Your task to perform on an android device: turn on sleep mode Image 0: 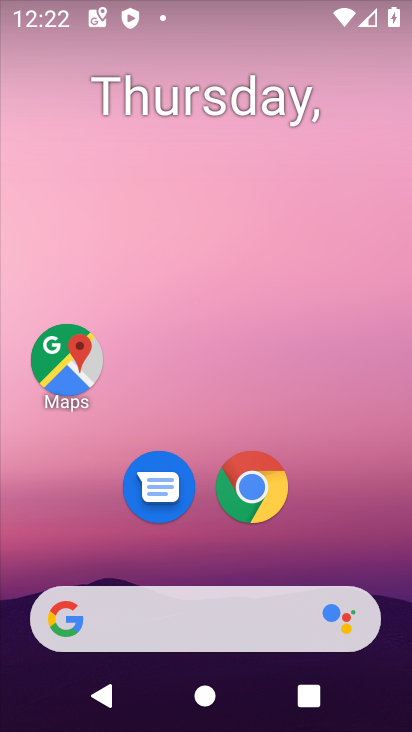
Step 0: drag from (357, 501) to (342, 60)
Your task to perform on an android device: turn on sleep mode Image 1: 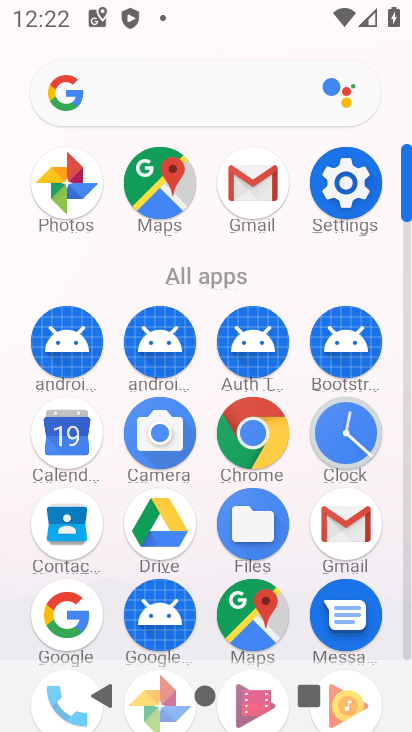
Step 1: click (343, 158)
Your task to perform on an android device: turn on sleep mode Image 2: 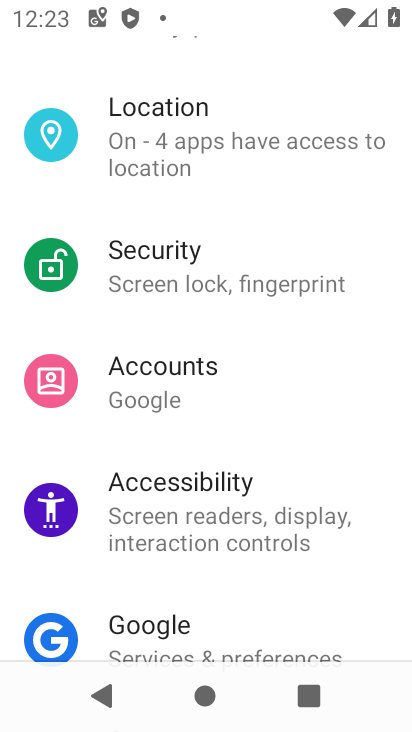
Step 2: drag from (259, 217) to (333, 629)
Your task to perform on an android device: turn on sleep mode Image 3: 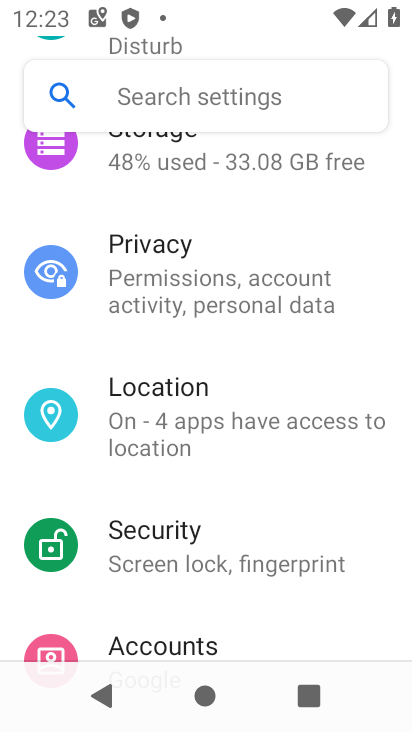
Step 3: drag from (237, 214) to (325, 558)
Your task to perform on an android device: turn on sleep mode Image 4: 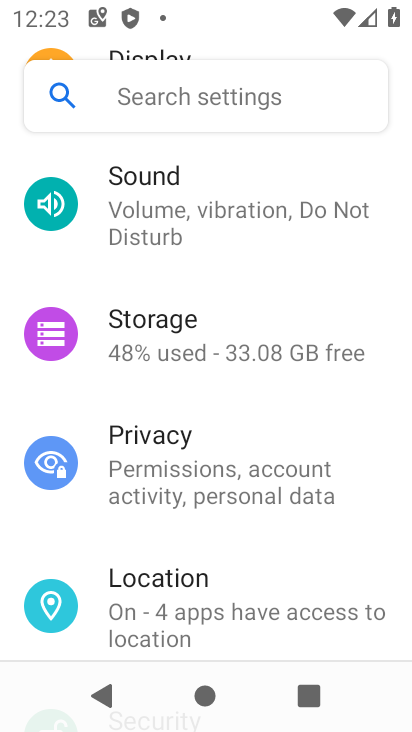
Step 4: drag from (242, 210) to (309, 635)
Your task to perform on an android device: turn on sleep mode Image 5: 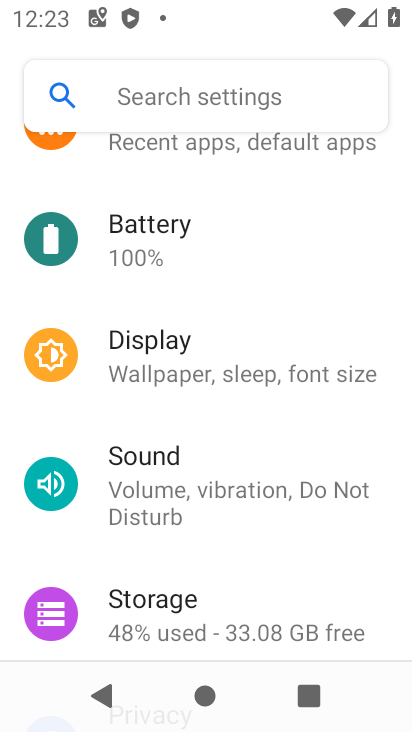
Step 5: click (299, 351)
Your task to perform on an android device: turn on sleep mode Image 6: 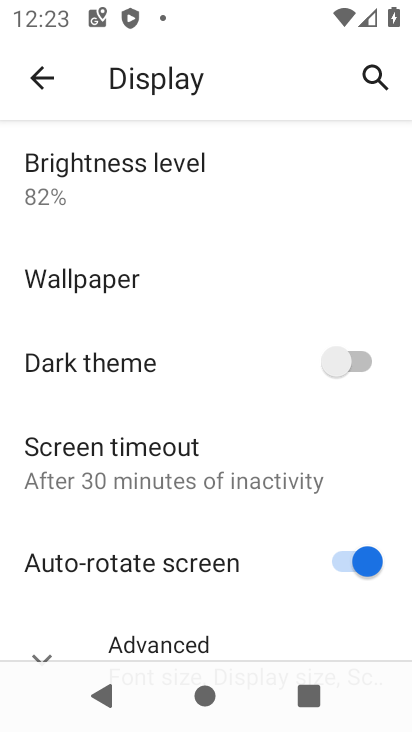
Step 6: task complete